Your task to perform on an android device: toggle translation in the chrome app Image 0: 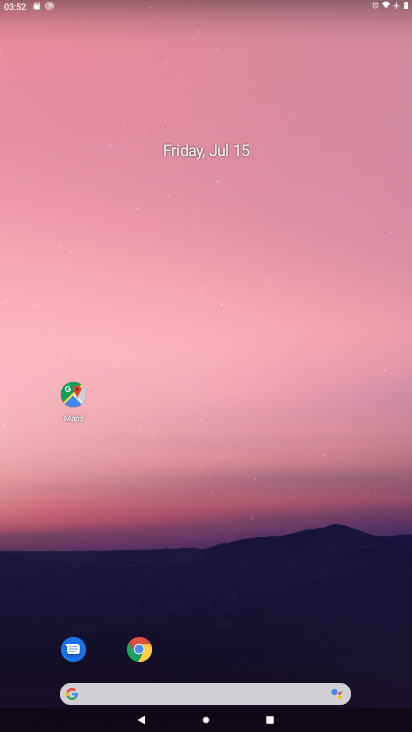
Step 0: click (139, 648)
Your task to perform on an android device: toggle translation in the chrome app Image 1: 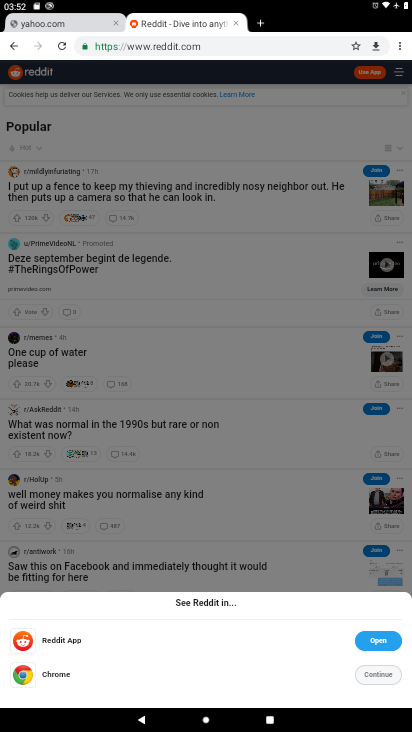
Step 1: click (397, 47)
Your task to perform on an android device: toggle translation in the chrome app Image 2: 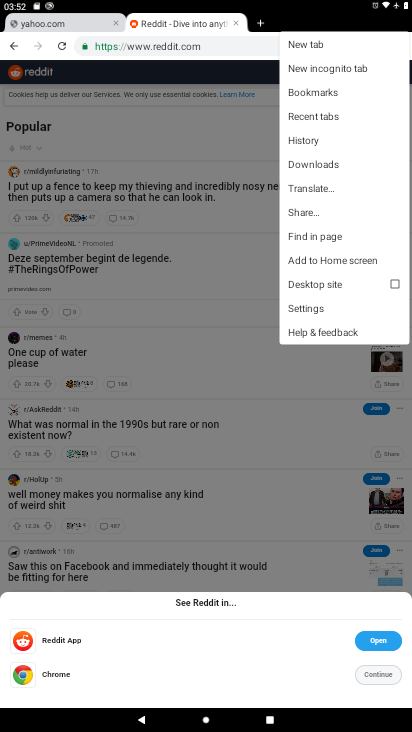
Step 2: click (313, 309)
Your task to perform on an android device: toggle translation in the chrome app Image 3: 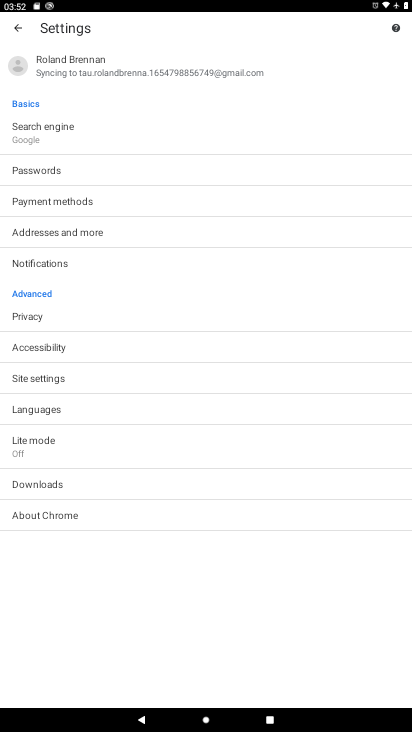
Step 3: click (33, 410)
Your task to perform on an android device: toggle translation in the chrome app Image 4: 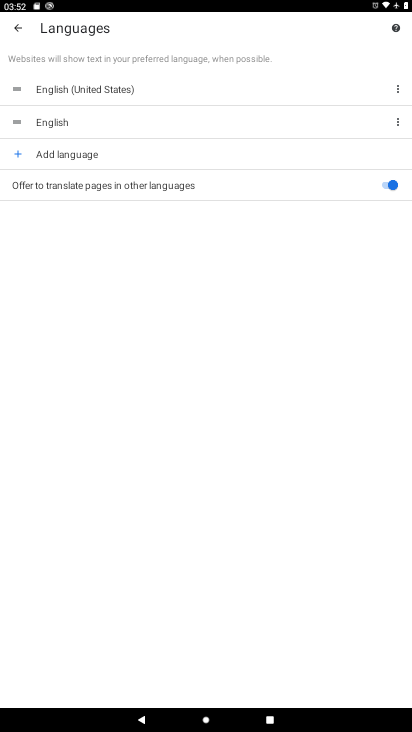
Step 4: click (380, 185)
Your task to perform on an android device: toggle translation in the chrome app Image 5: 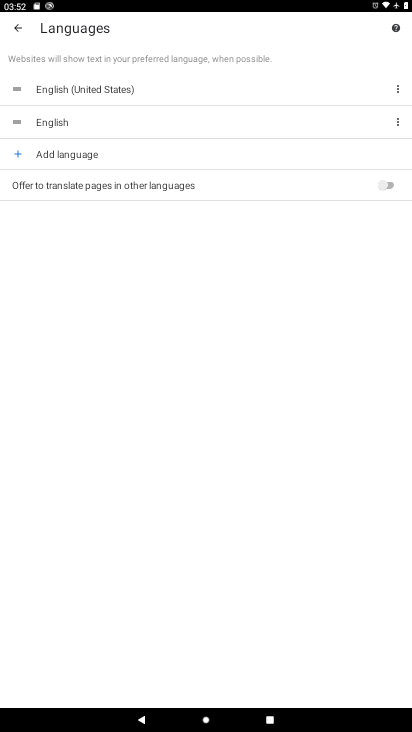
Step 5: task complete